Your task to perform on an android device: toggle improve location accuracy Image 0: 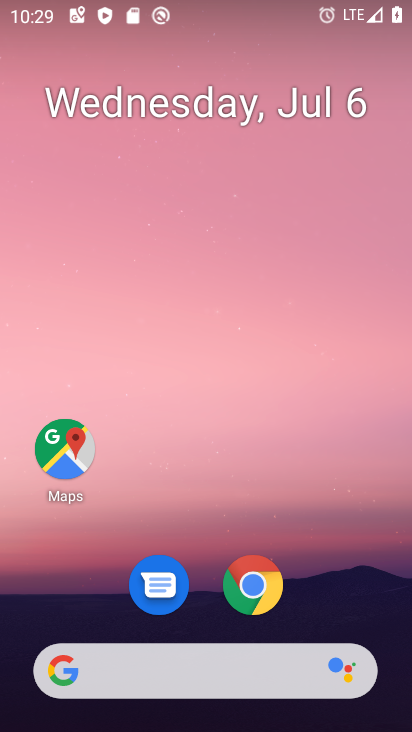
Step 0: drag from (203, 530) to (235, 21)
Your task to perform on an android device: toggle improve location accuracy Image 1: 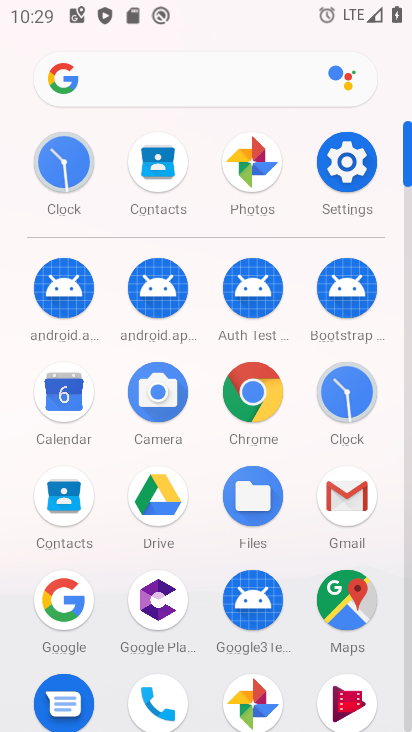
Step 1: click (339, 166)
Your task to perform on an android device: toggle improve location accuracy Image 2: 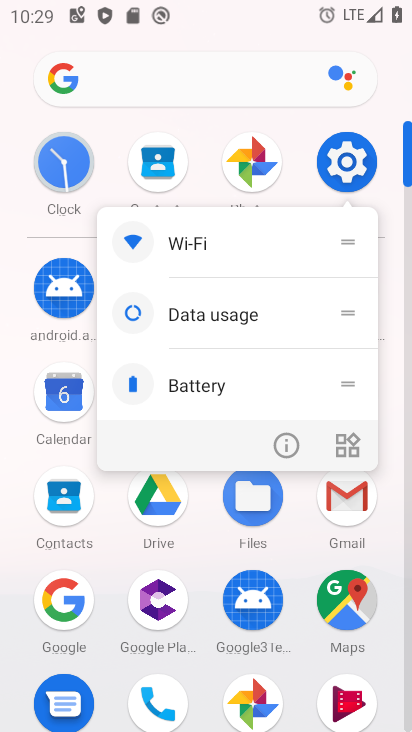
Step 2: click (346, 158)
Your task to perform on an android device: toggle improve location accuracy Image 3: 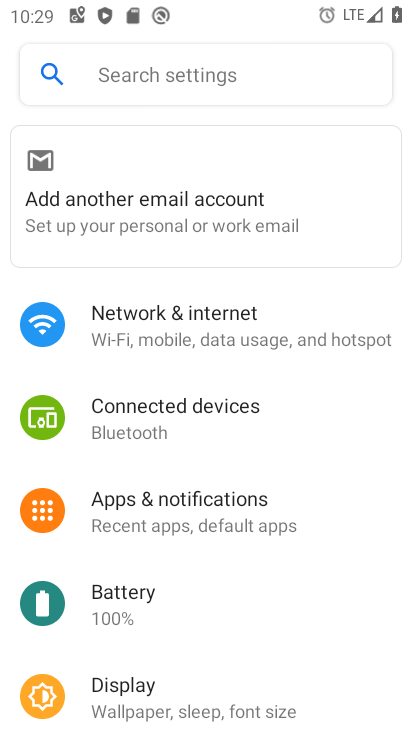
Step 3: drag from (229, 573) to (223, 82)
Your task to perform on an android device: toggle improve location accuracy Image 4: 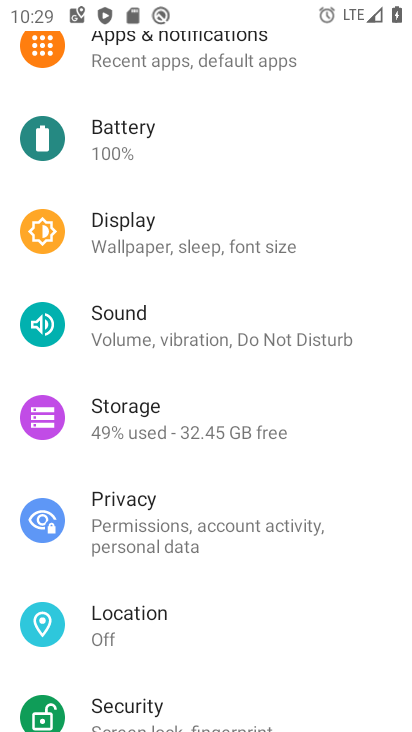
Step 4: click (190, 633)
Your task to perform on an android device: toggle improve location accuracy Image 5: 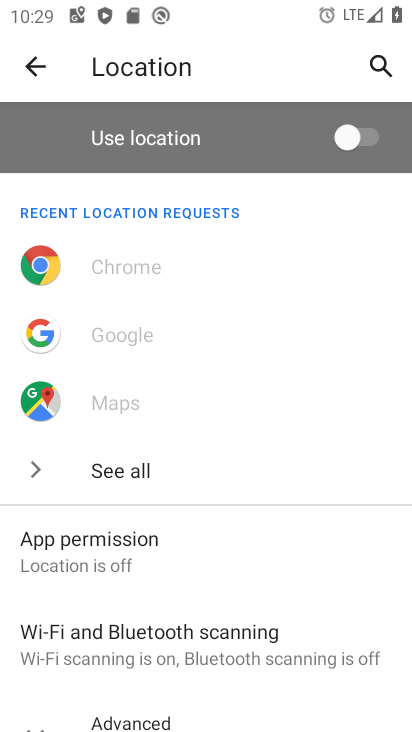
Step 5: drag from (238, 575) to (244, 233)
Your task to perform on an android device: toggle improve location accuracy Image 6: 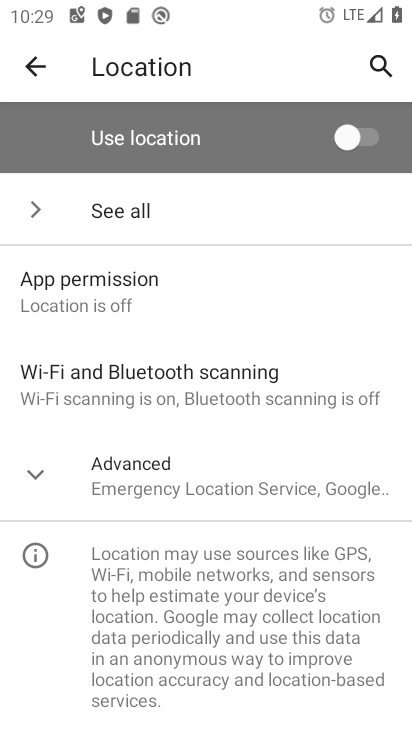
Step 6: click (30, 468)
Your task to perform on an android device: toggle improve location accuracy Image 7: 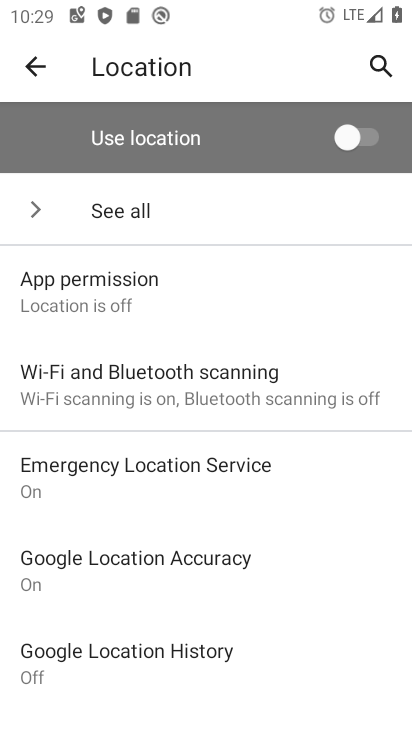
Step 7: click (212, 569)
Your task to perform on an android device: toggle improve location accuracy Image 8: 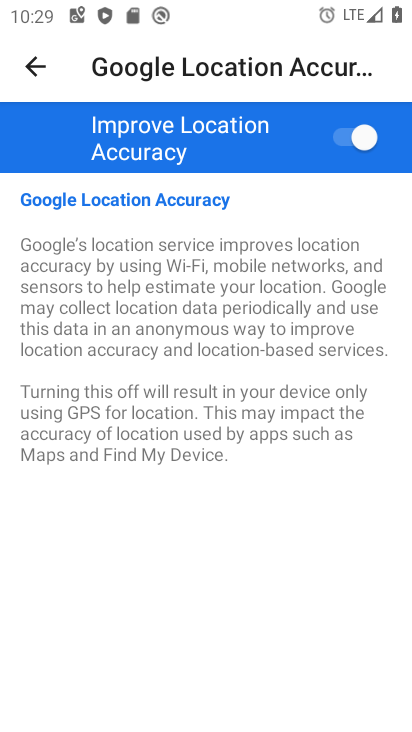
Step 8: click (350, 136)
Your task to perform on an android device: toggle improve location accuracy Image 9: 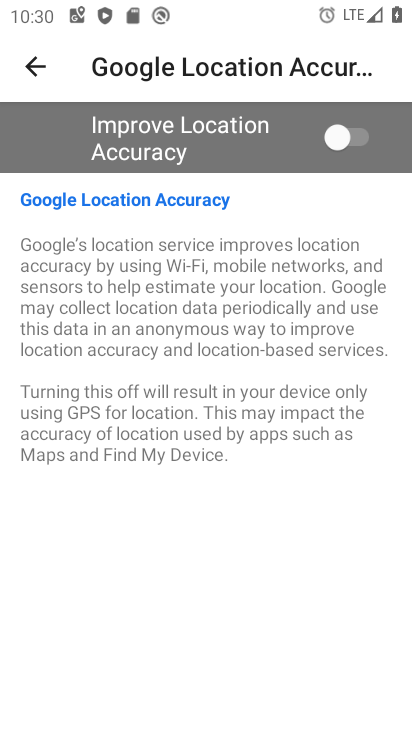
Step 9: task complete